Your task to perform on an android device: change notification settings in the gmail app Image 0: 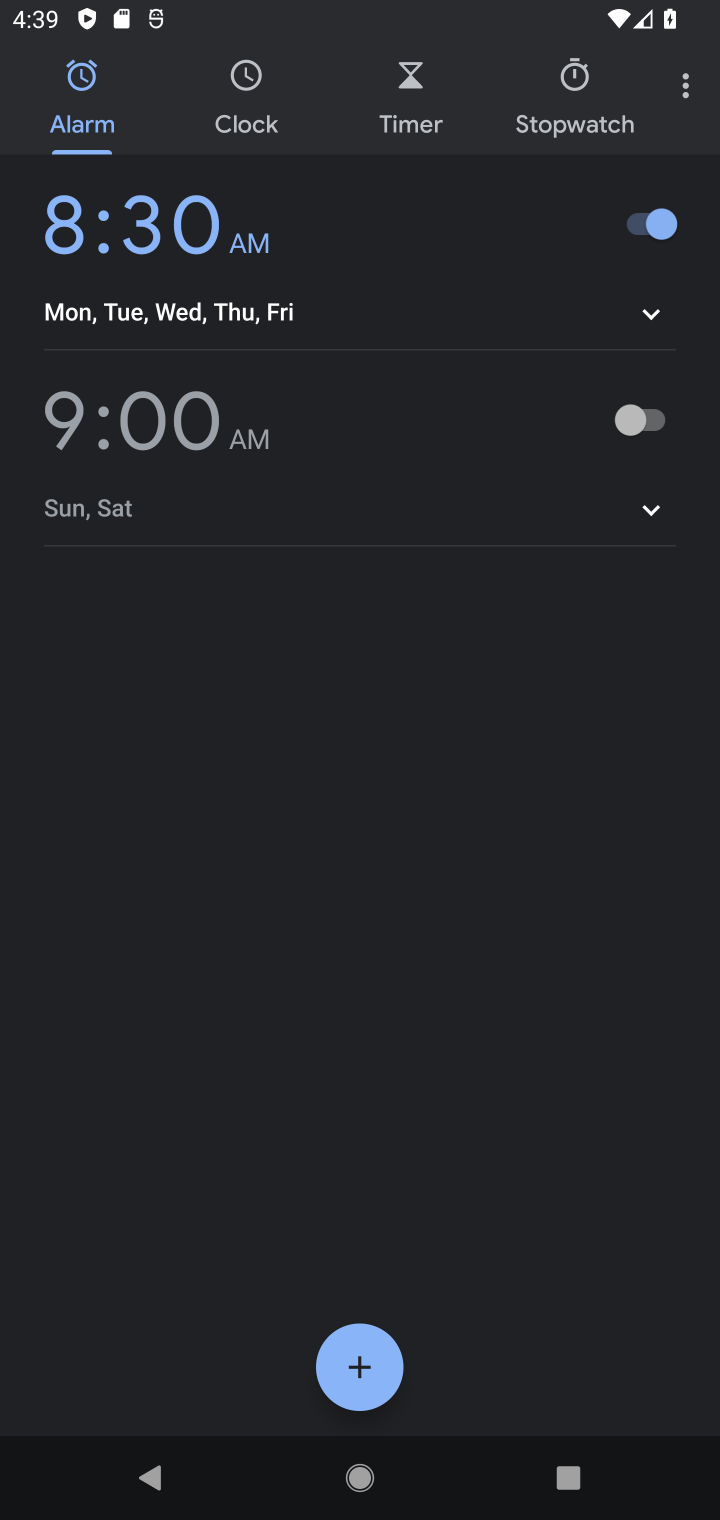
Step 0: press back button
Your task to perform on an android device: change notification settings in the gmail app Image 1: 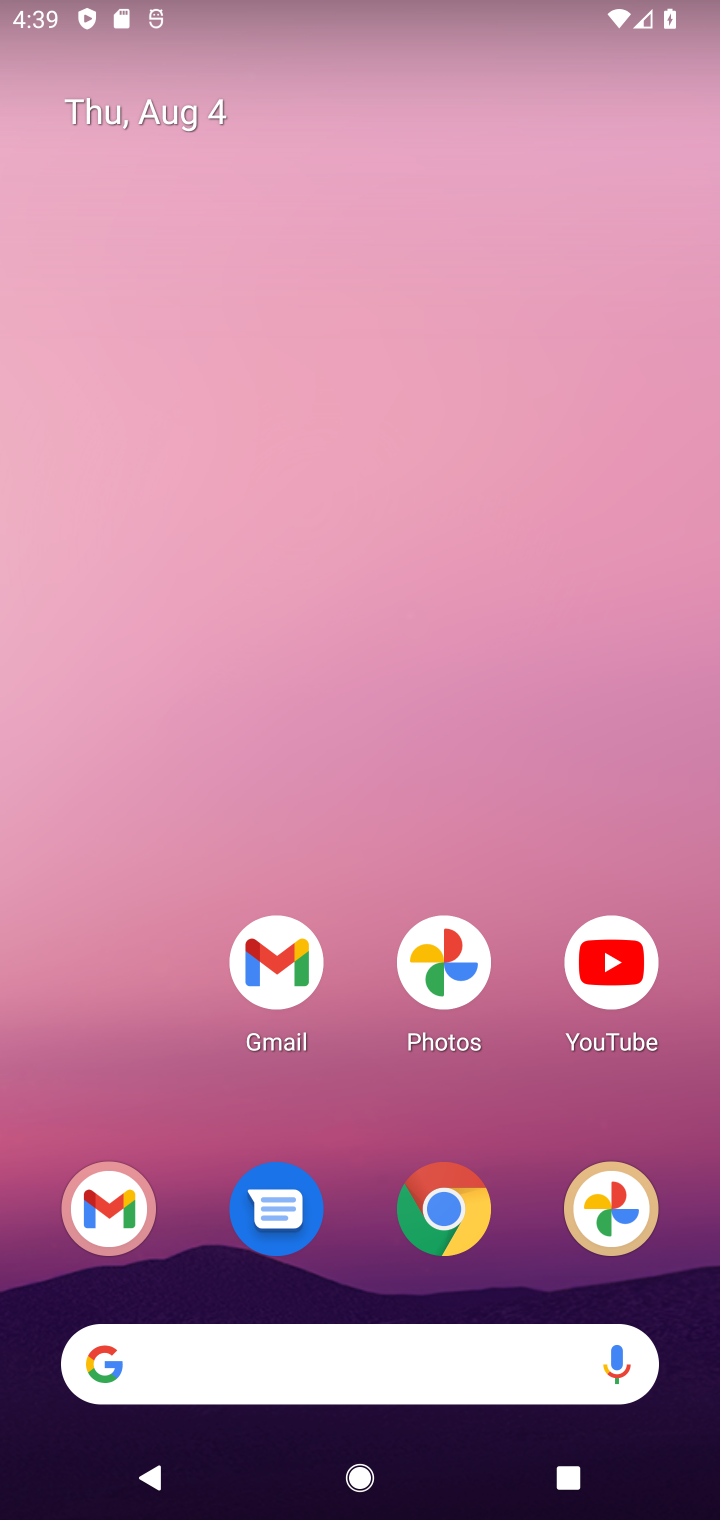
Step 1: click (101, 1207)
Your task to perform on an android device: change notification settings in the gmail app Image 2: 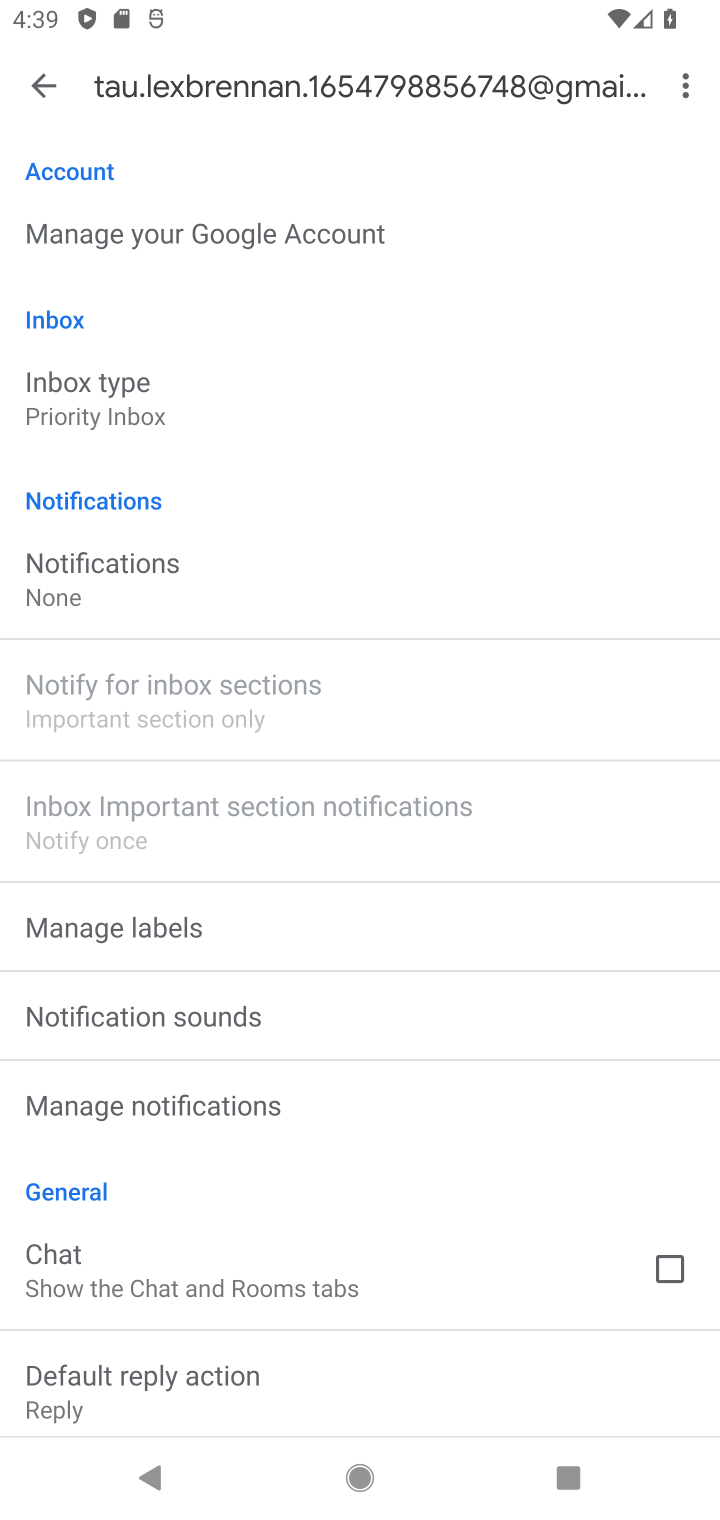
Step 2: click (143, 569)
Your task to perform on an android device: change notification settings in the gmail app Image 3: 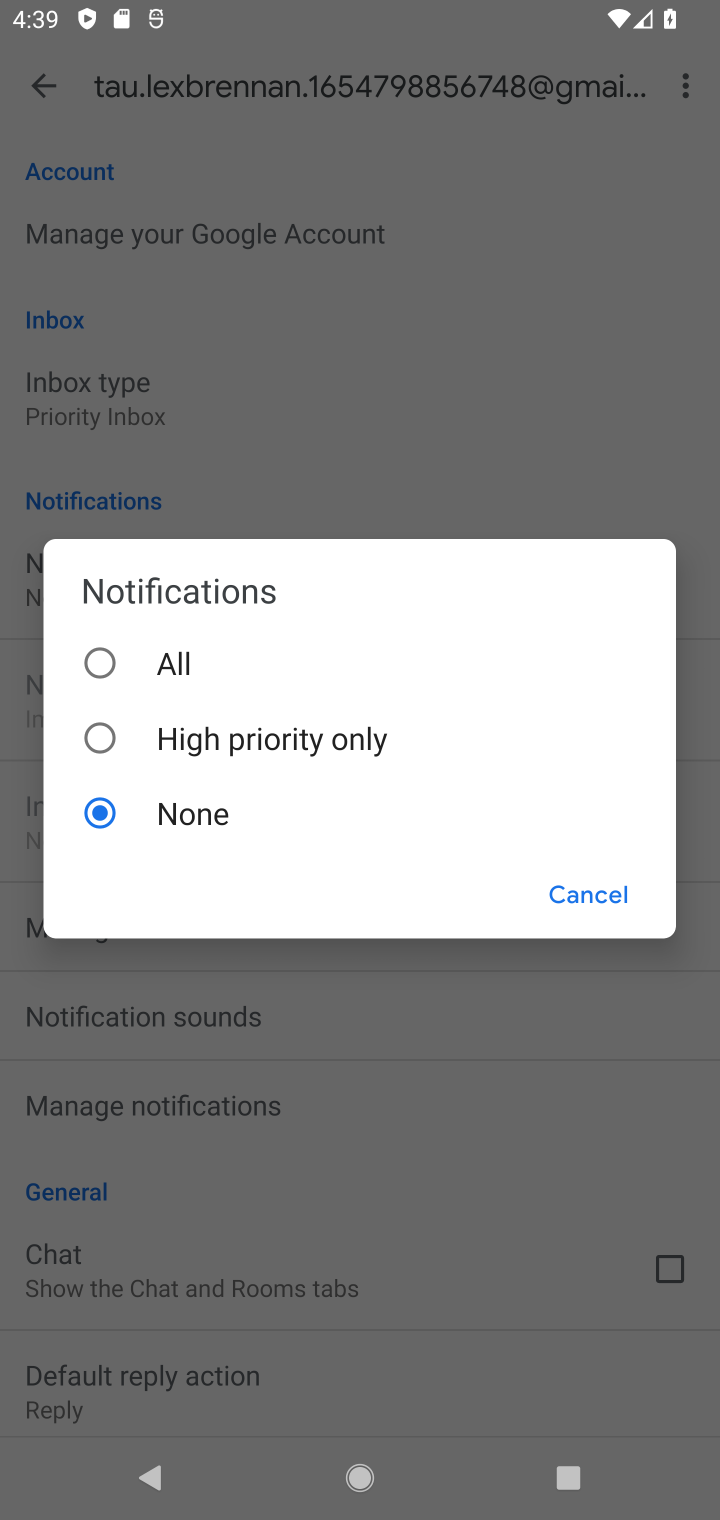
Step 3: click (100, 658)
Your task to perform on an android device: change notification settings in the gmail app Image 4: 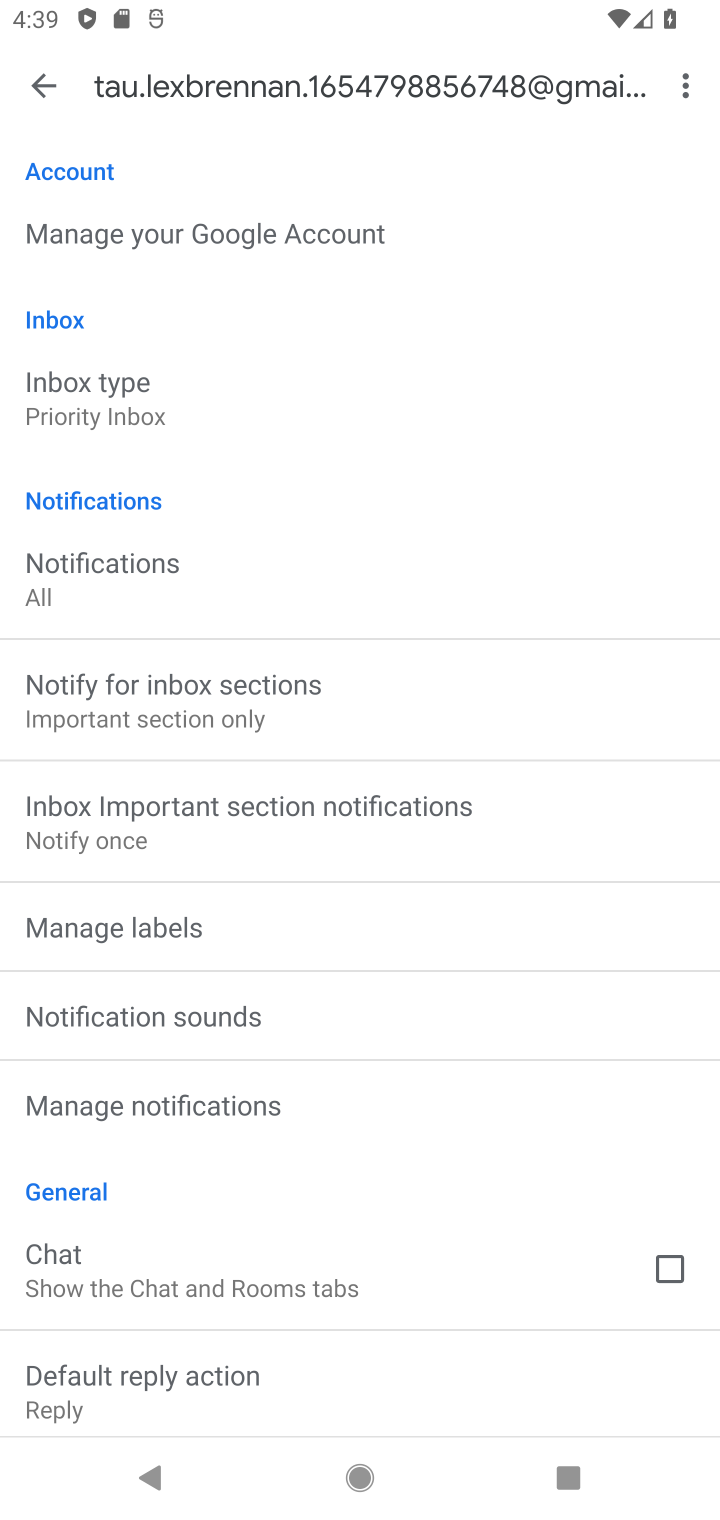
Step 4: task complete